Your task to perform on an android device: turn on wifi Image 0: 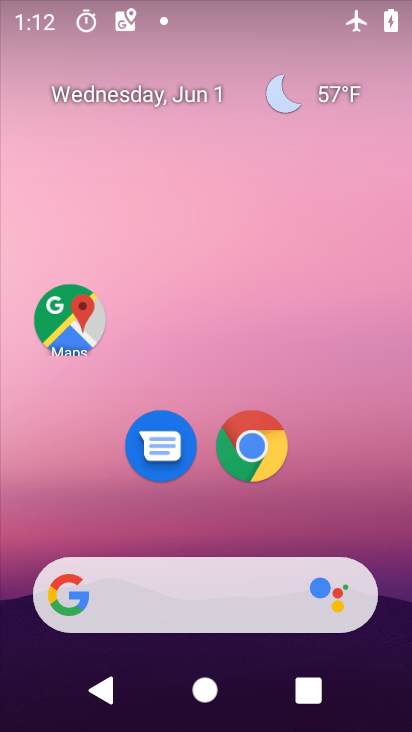
Step 0: click (233, 177)
Your task to perform on an android device: turn on wifi Image 1: 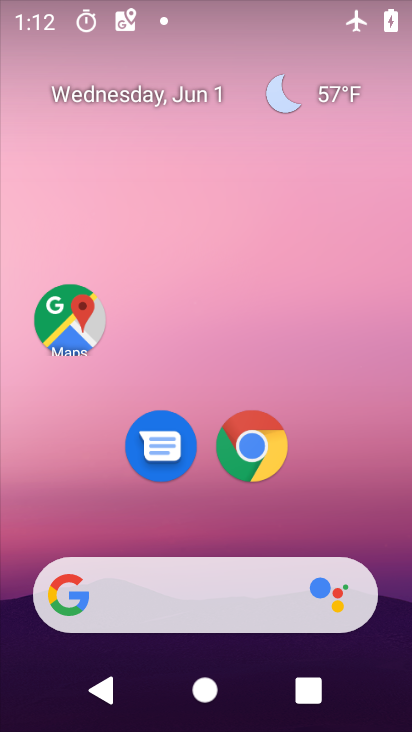
Step 1: drag from (211, 502) to (232, 134)
Your task to perform on an android device: turn on wifi Image 2: 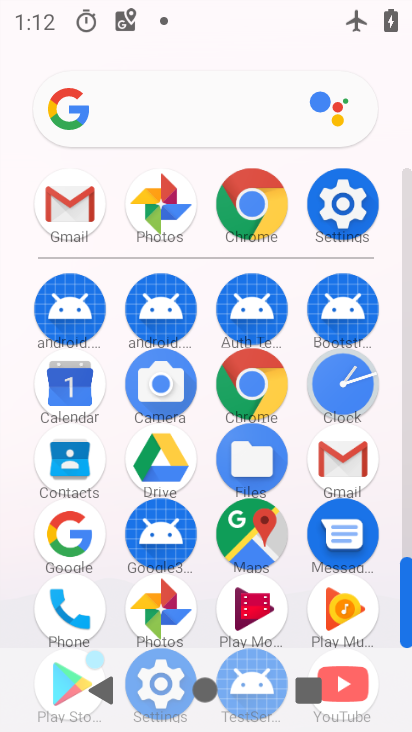
Step 2: drag from (200, 262) to (226, 83)
Your task to perform on an android device: turn on wifi Image 3: 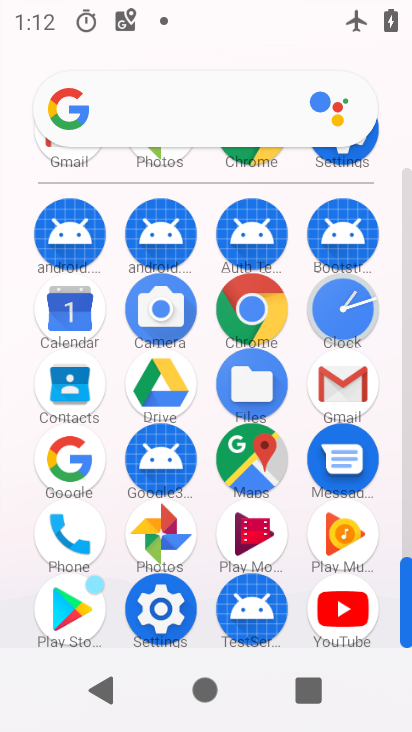
Step 3: click (172, 616)
Your task to perform on an android device: turn on wifi Image 4: 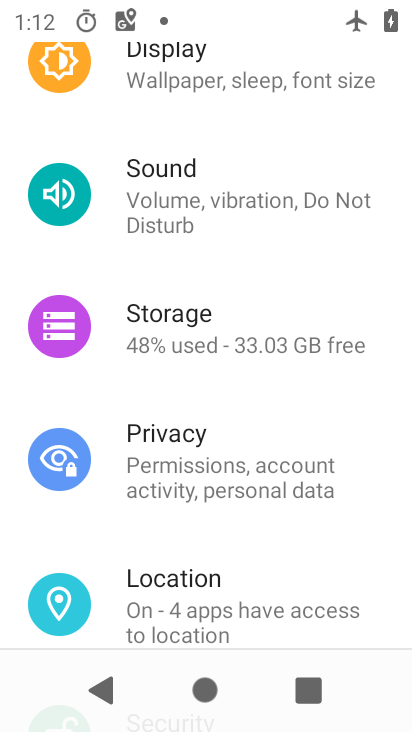
Step 4: drag from (232, 210) to (237, 609)
Your task to perform on an android device: turn on wifi Image 5: 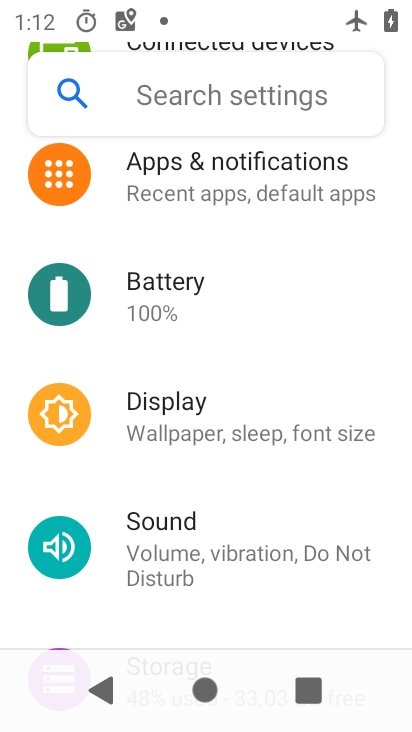
Step 5: drag from (256, 246) to (259, 600)
Your task to perform on an android device: turn on wifi Image 6: 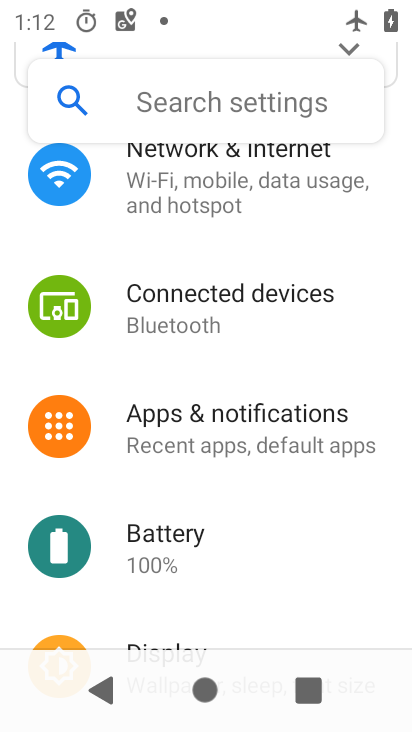
Step 6: click (266, 212)
Your task to perform on an android device: turn on wifi Image 7: 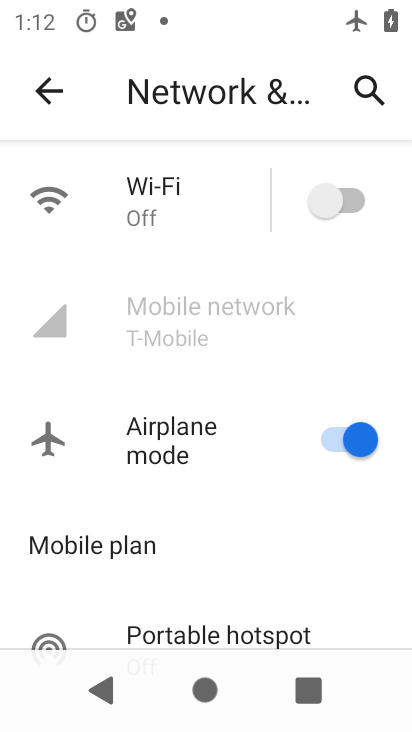
Step 7: click (305, 208)
Your task to perform on an android device: turn on wifi Image 8: 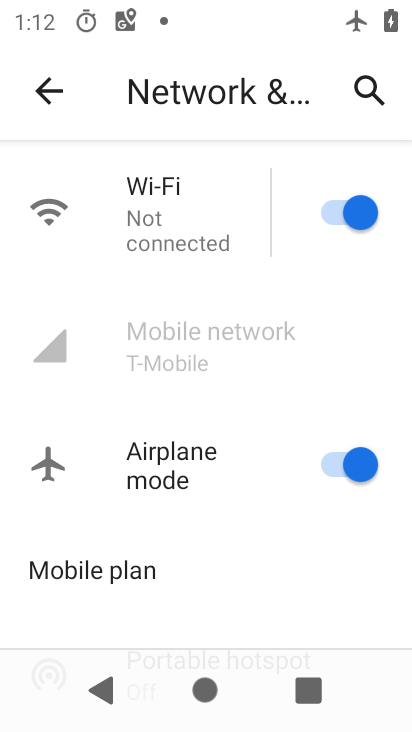
Step 8: task complete